Your task to perform on an android device: delete browsing data in the chrome app Image 0: 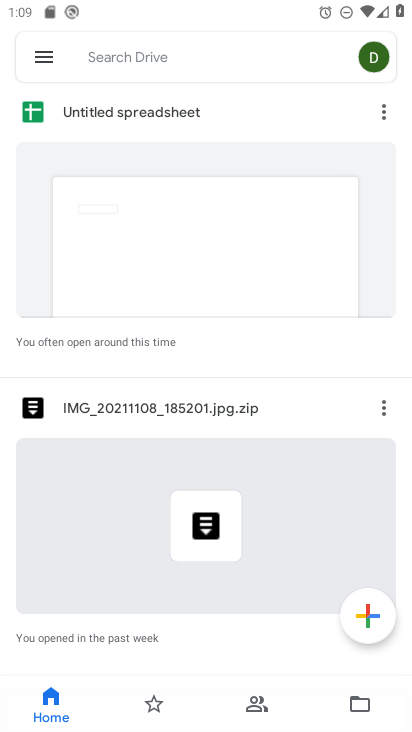
Step 0: press home button
Your task to perform on an android device: delete browsing data in the chrome app Image 1: 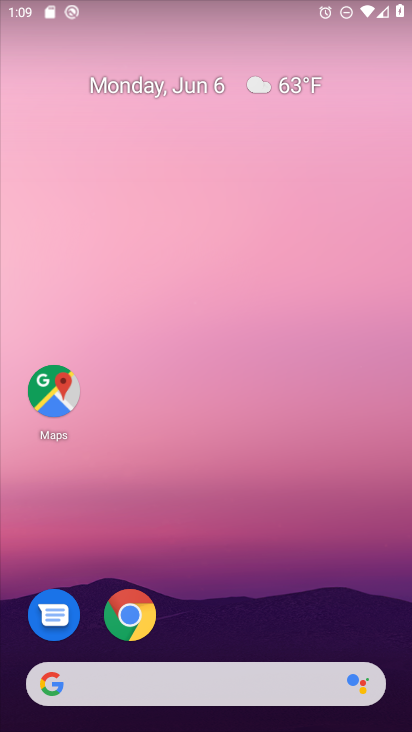
Step 1: click (141, 612)
Your task to perform on an android device: delete browsing data in the chrome app Image 2: 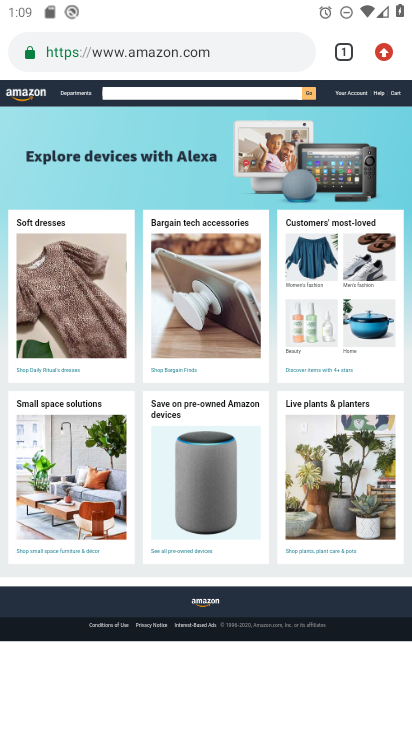
Step 2: click (387, 60)
Your task to perform on an android device: delete browsing data in the chrome app Image 3: 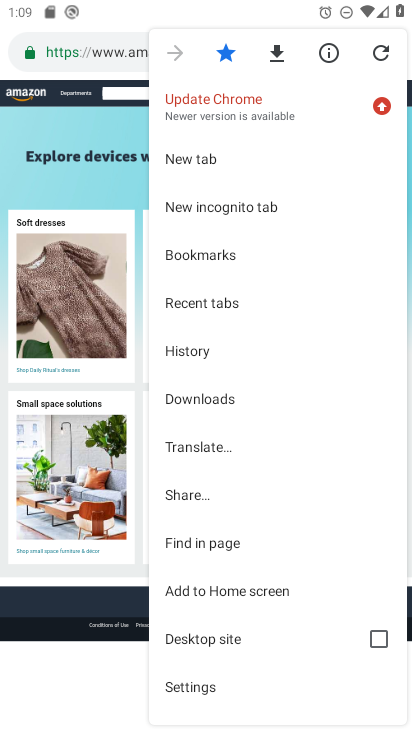
Step 3: click (218, 338)
Your task to perform on an android device: delete browsing data in the chrome app Image 4: 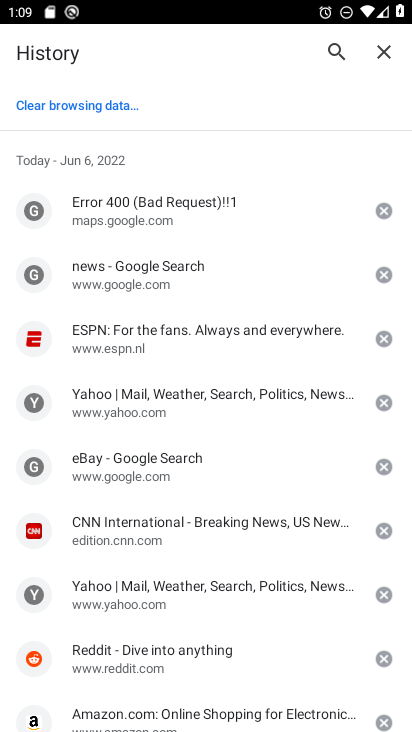
Step 4: click (35, 102)
Your task to perform on an android device: delete browsing data in the chrome app Image 5: 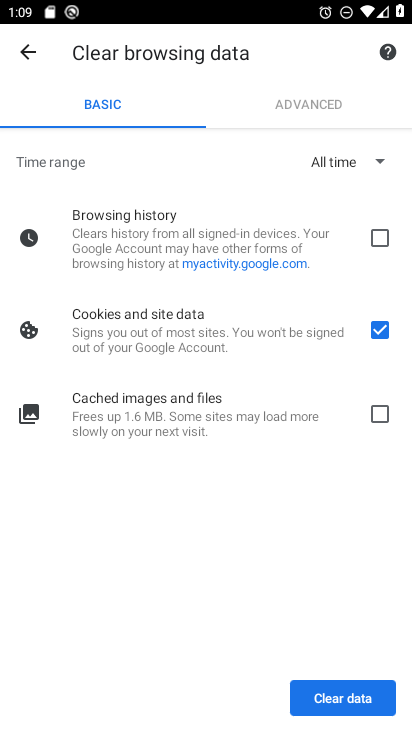
Step 5: click (344, 226)
Your task to perform on an android device: delete browsing data in the chrome app Image 6: 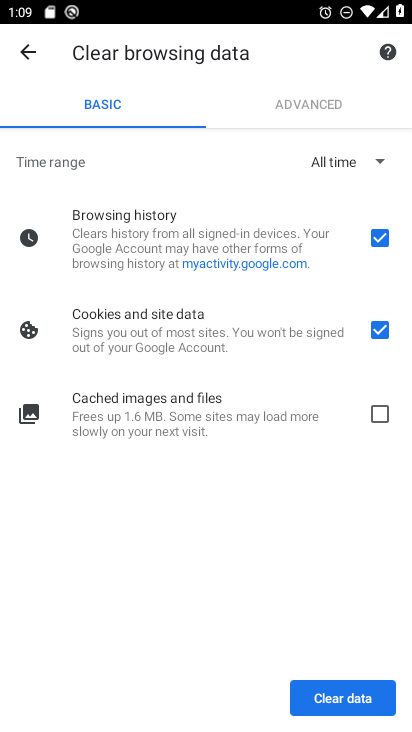
Step 6: click (348, 394)
Your task to perform on an android device: delete browsing data in the chrome app Image 7: 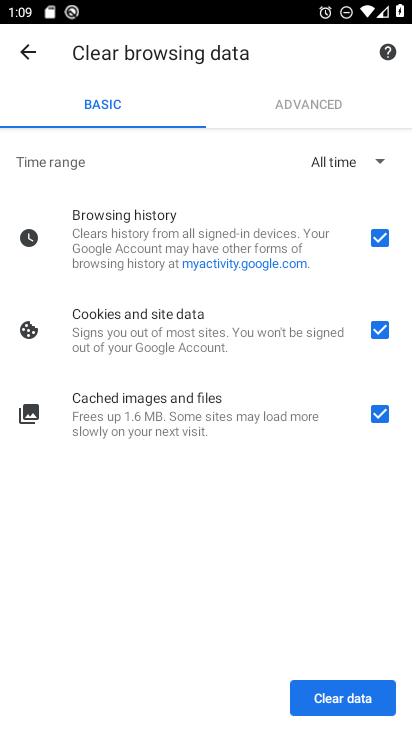
Step 7: click (367, 704)
Your task to perform on an android device: delete browsing data in the chrome app Image 8: 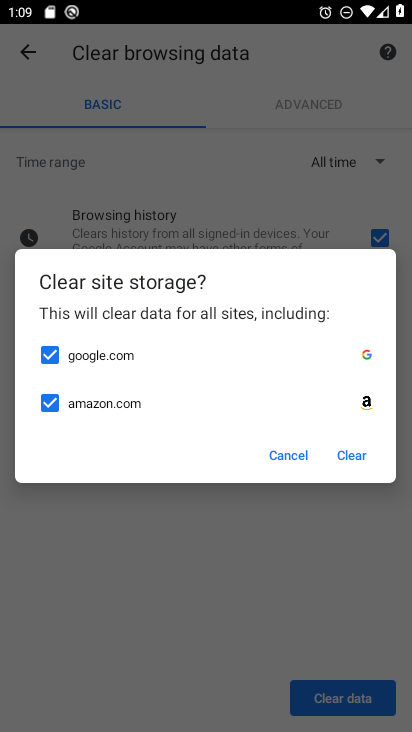
Step 8: click (344, 456)
Your task to perform on an android device: delete browsing data in the chrome app Image 9: 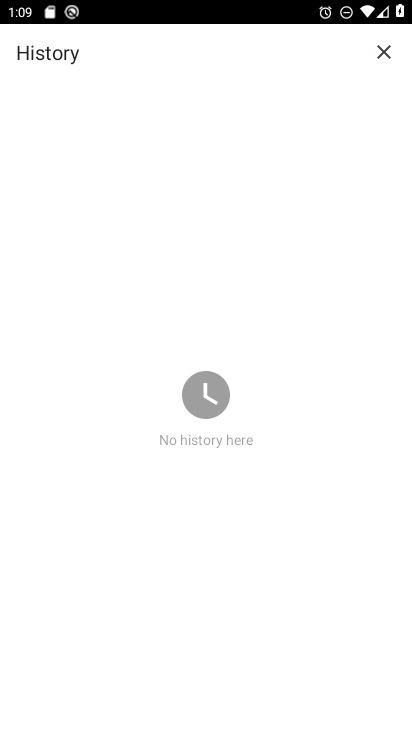
Step 9: task complete